Your task to perform on an android device: What's the weather going to be this weekend? Image 0: 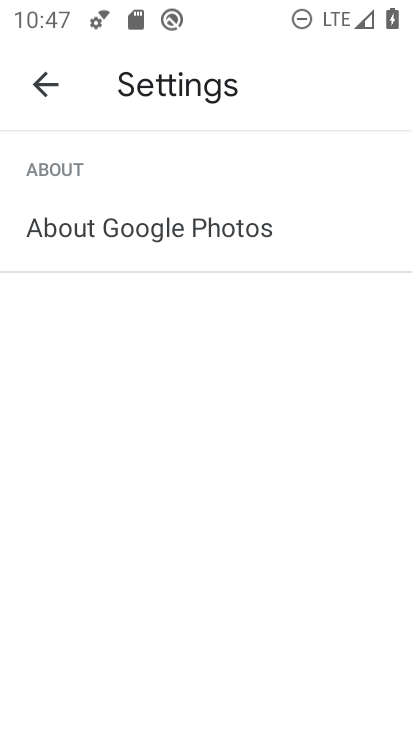
Step 0: press back button
Your task to perform on an android device: What's the weather going to be this weekend? Image 1: 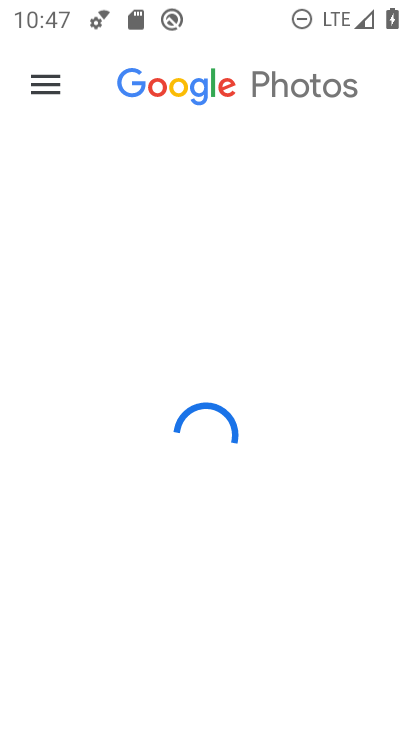
Step 1: press back button
Your task to perform on an android device: What's the weather going to be this weekend? Image 2: 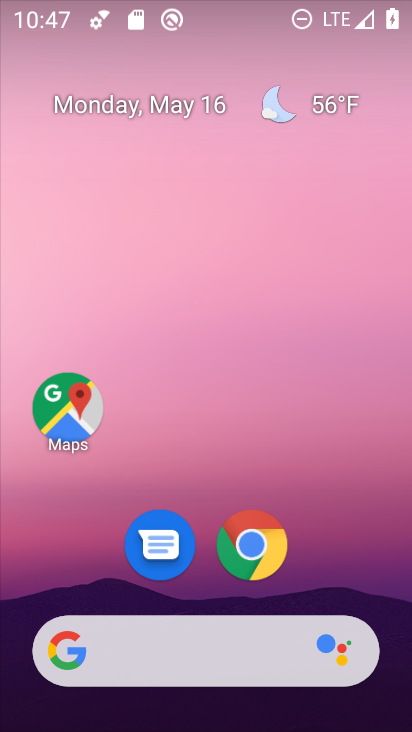
Step 2: press back button
Your task to perform on an android device: What's the weather going to be this weekend? Image 3: 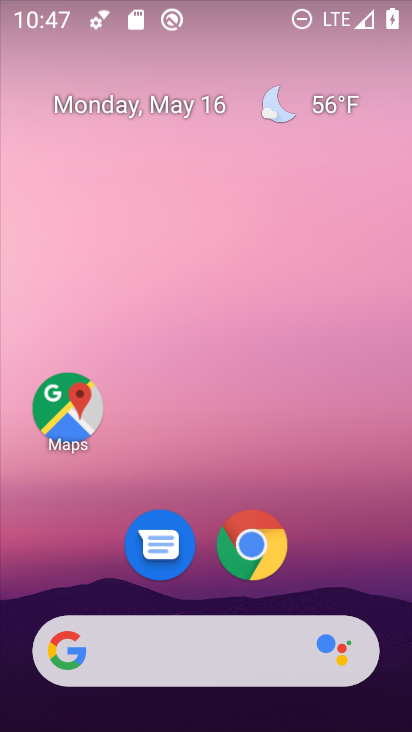
Step 3: drag from (314, 479) to (234, 131)
Your task to perform on an android device: What's the weather going to be this weekend? Image 4: 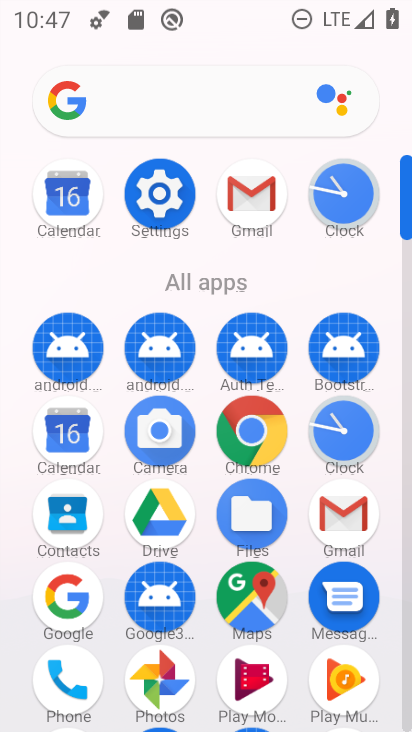
Step 4: drag from (195, 527) to (227, 260)
Your task to perform on an android device: What's the weather going to be this weekend? Image 5: 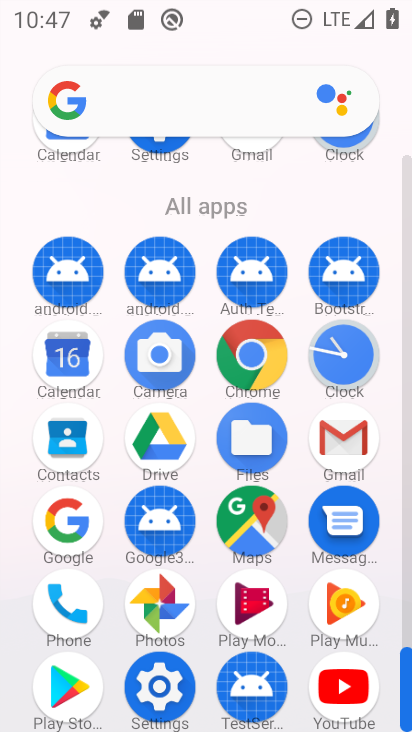
Step 5: click (62, 523)
Your task to perform on an android device: What's the weather going to be this weekend? Image 6: 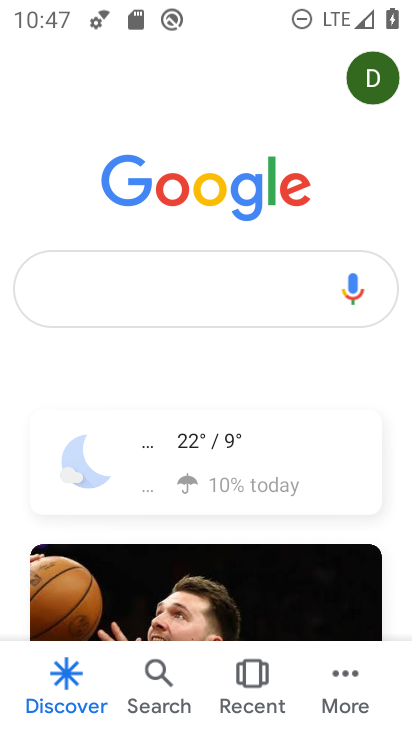
Step 6: click (98, 302)
Your task to perform on an android device: What's the weather going to be this weekend? Image 7: 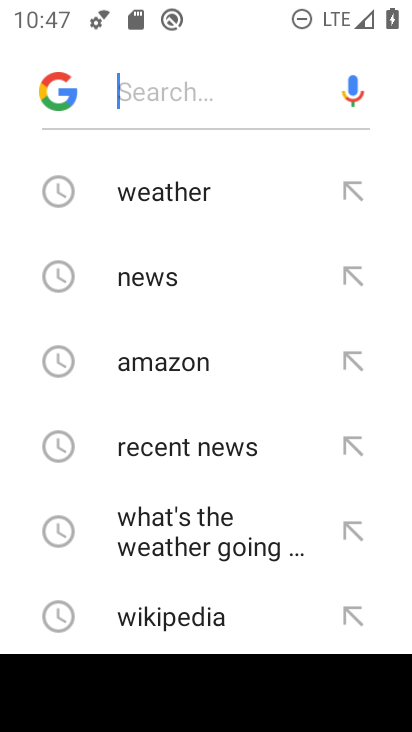
Step 7: type "What's the weather going to be this weekend?"
Your task to perform on an android device: What's the weather going to be this weekend? Image 8: 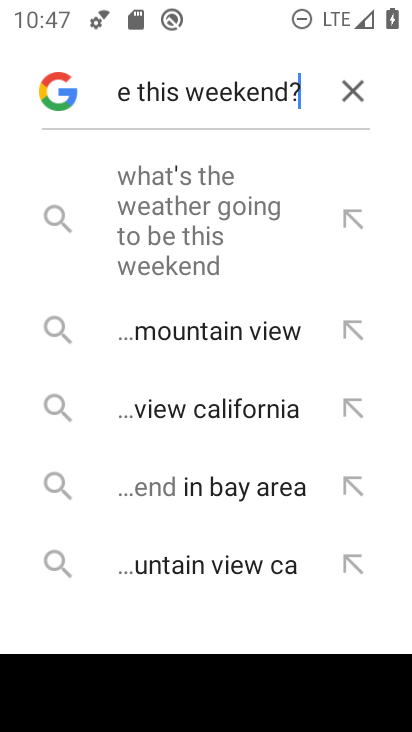
Step 8: click (194, 191)
Your task to perform on an android device: What's the weather going to be this weekend? Image 9: 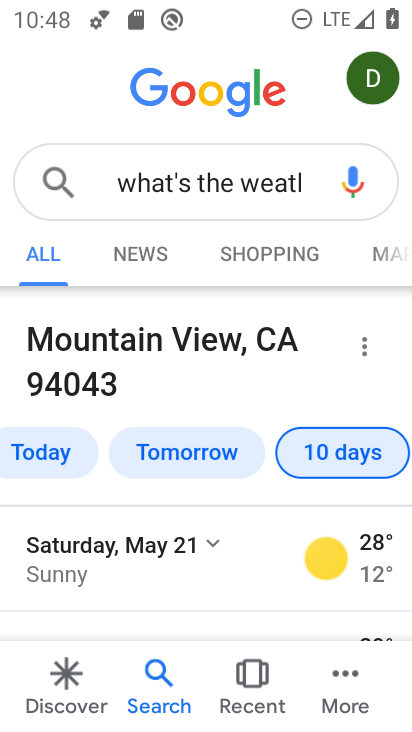
Step 9: task complete